Your task to perform on an android device: find which apps use the phone's location Image 0: 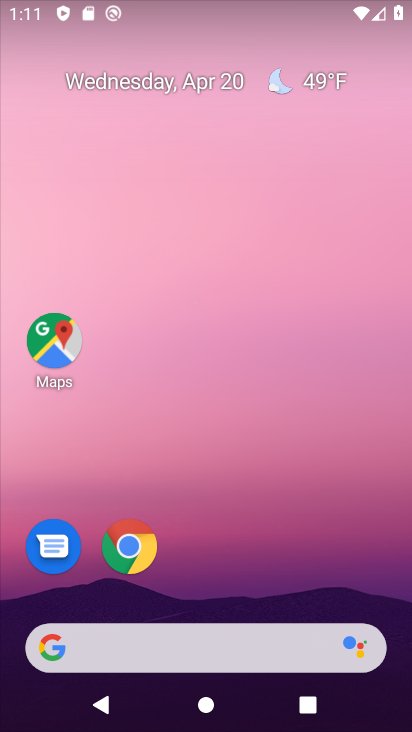
Step 0: drag from (316, 432) to (327, 268)
Your task to perform on an android device: find which apps use the phone's location Image 1: 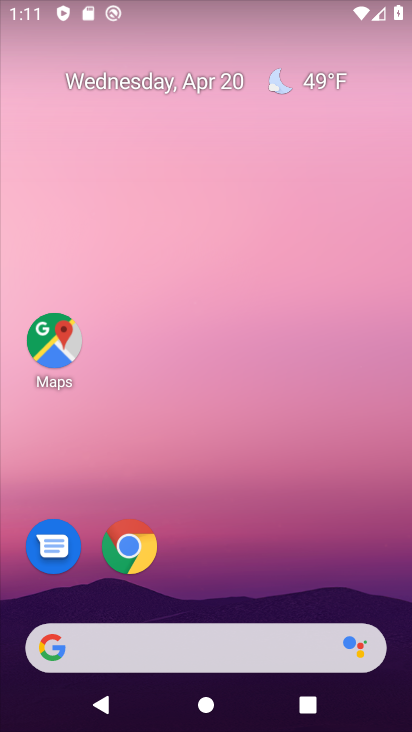
Step 1: drag from (262, 584) to (338, 189)
Your task to perform on an android device: find which apps use the phone's location Image 2: 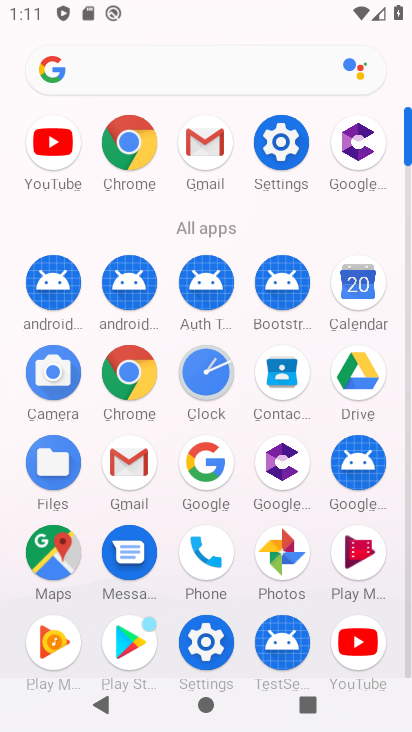
Step 2: click (290, 129)
Your task to perform on an android device: find which apps use the phone's location Image 3: 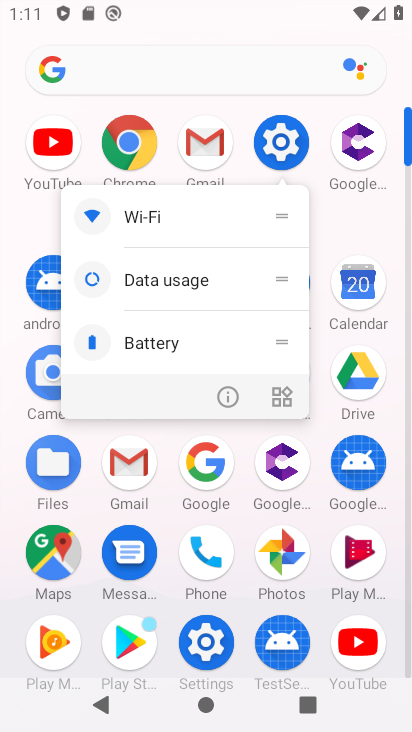
Step 3: click (268, 130)
Your task to perform on an android device: find which apps use the phone's location Image 4: 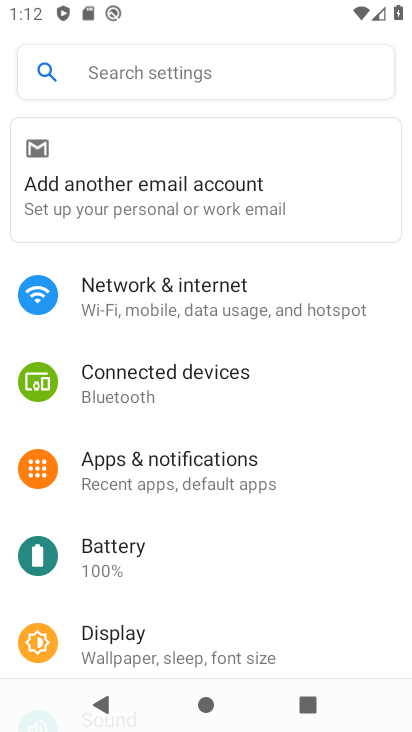
Step 4: drag from (141, 510) to (217, 141)
Your task to perform on an android device: find which apps use the phone's location Image 5: 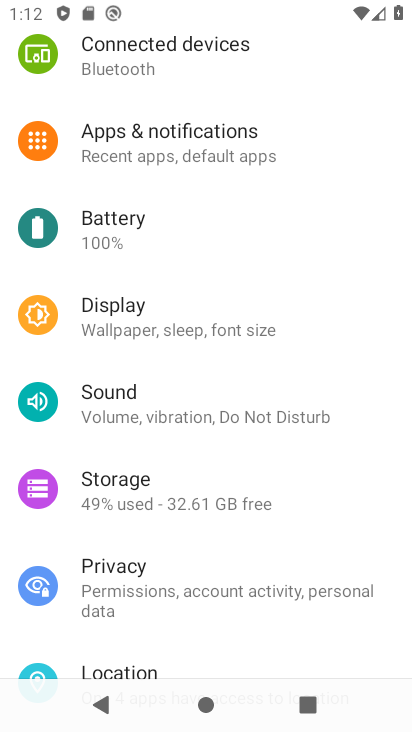
Step 5: drag from (149, 605) to (252, 141)
Your task to perform on an android device: find which apps use the phone's location Image 6: 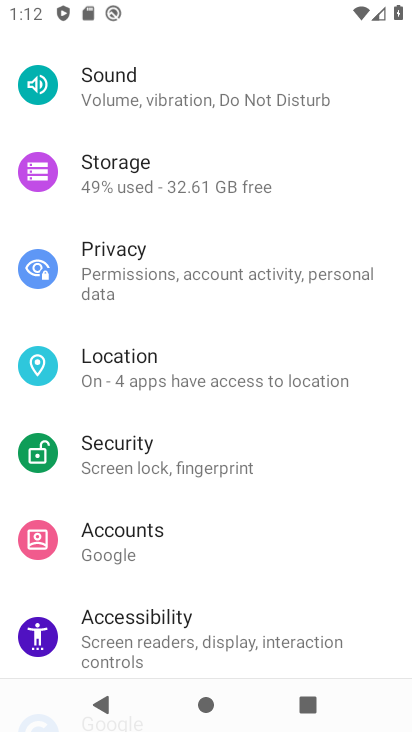
Step 6: click (223, 365)
Your task to perform on an android device: find which apps use the phone's location Image 7: 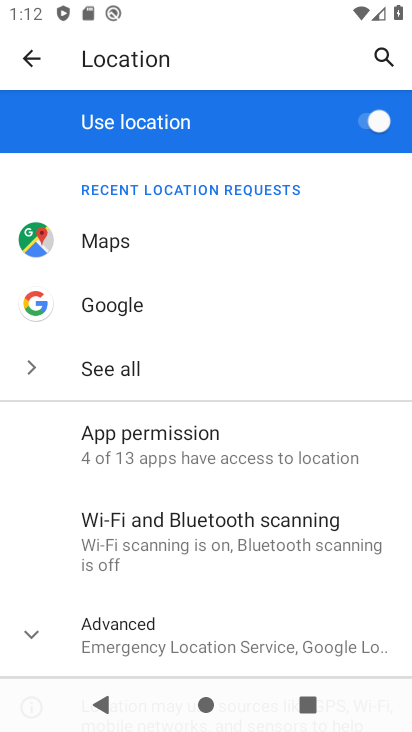
Step 7: task complete